Your task to perform on an android device: find photos in the google photos app Image 0: 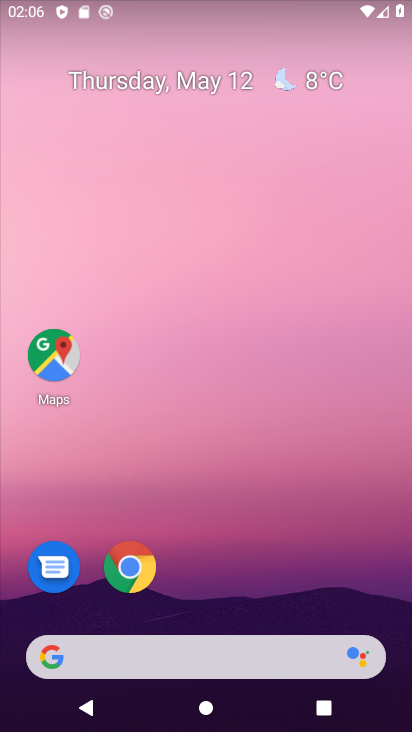
Step 0: drag from (243, 501) to (250, 130)
Your task to perform on an android device: find photos in the google photos app Image 1: 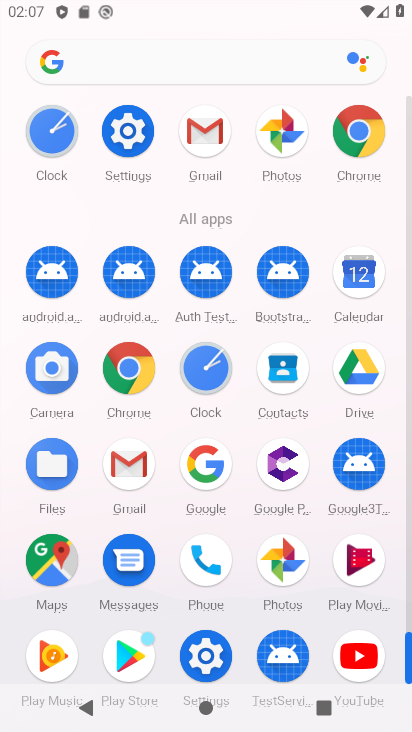
Step 1: click (296, 567)
Your task to perform on an android device: find photos in the google photos app Image 2: 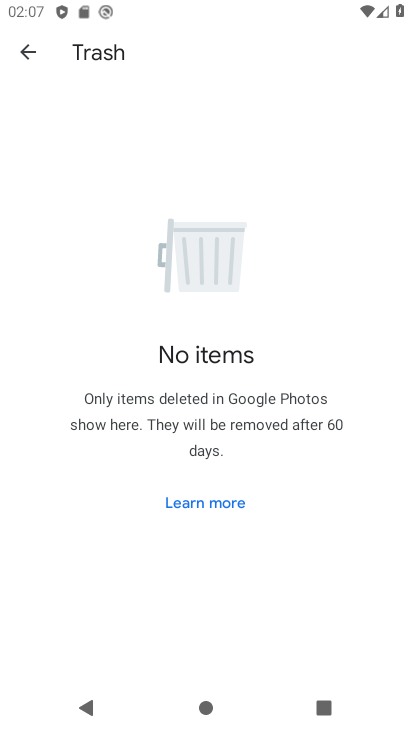
Step 2: task complete